Your task to perform on an android device: Clear the shopping cart on walmart. Add macbook pro 13 inch to the cart on walmart Image 0: 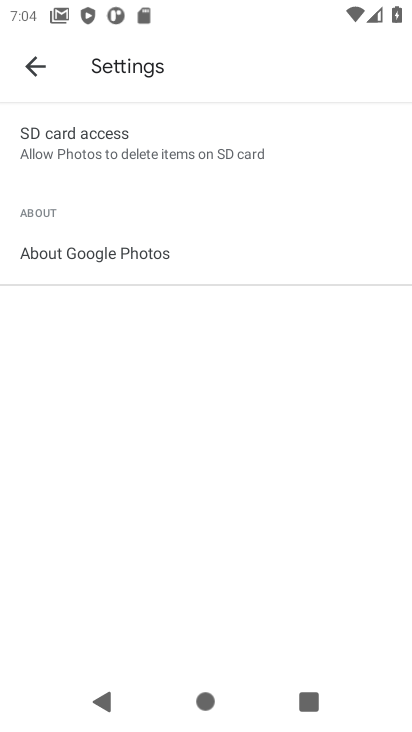
Step 0: press home button
Your task to perform on an android device: Clear the shopping cart on walmart. Add macbook pro 13 inch to the cart on walmart Image 1: 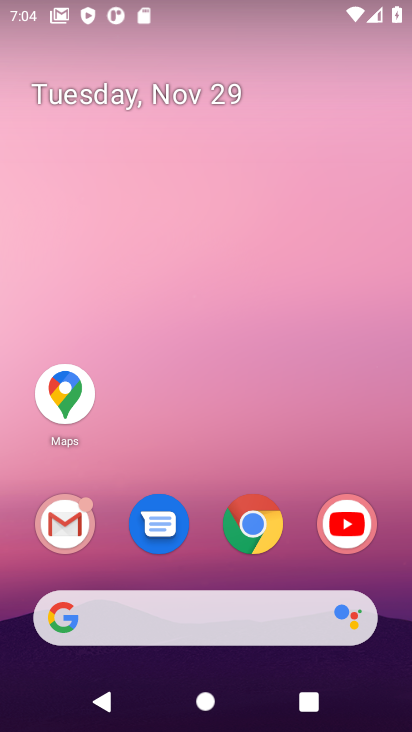
Step 1: click (258, 517)
Your task to perform on an android device: Clear the shopping cart on walmart. Add macbook pro 13 inch to the cart on walmart Image 2: 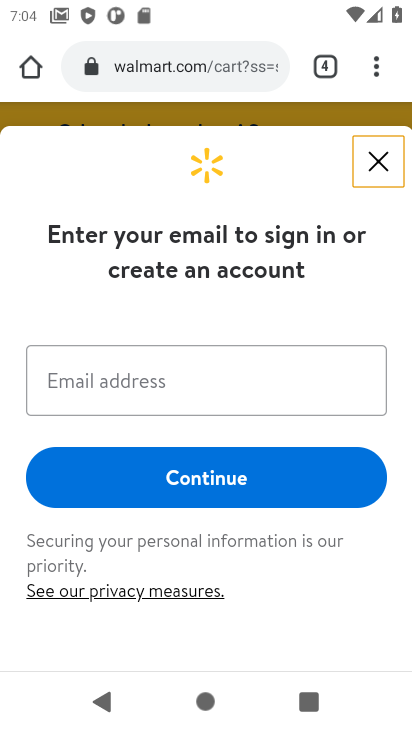
Step 2: click (392, 156)
Your task to perform on an android device: Clear the shopping cart on walmart. Add macbook pro 13 inch to the cart on walmart Image 3: 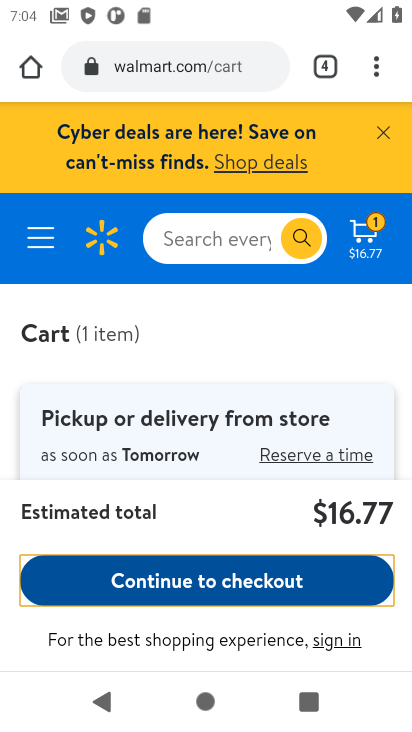
Step 3: click (344, 330)
Your task to perform on an android device: Clear the shopping cart on walmart. Add macbook pro 13 inch to the cart on walmart Image 4: 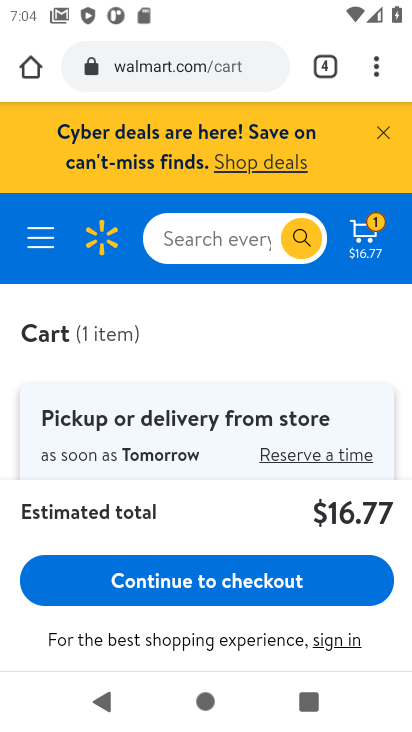
Step 4: drag from (344, 330) to (354, 154)
Your task to perform on an android device: Clear the shopping cart on walmart. Add macbook pro 13 inch to the cart on walmart Image 5: 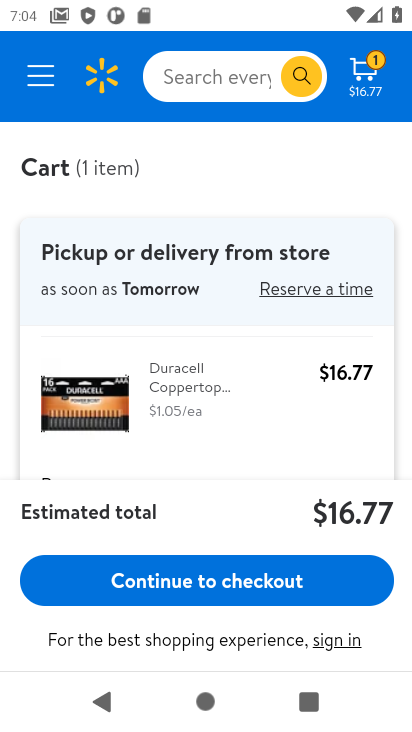
Step 5: drag from (329, 416) to (316, 227)
Your task to perform on an android device: Clear the shopping cart on walmart. Add macbook pro 13 inch to the cart on walmart Image 6: 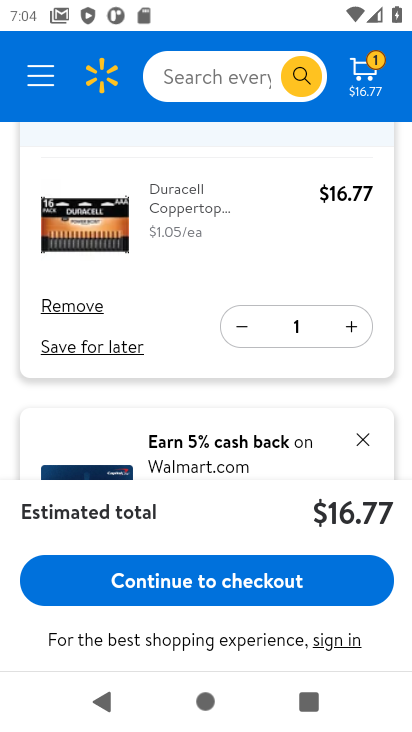
Step 6: click (47, 304)
Your task to perform on an android device: Clear the shopping cart on walmart. Add macbook pro 13 inch to the cart on walmart Image 7: 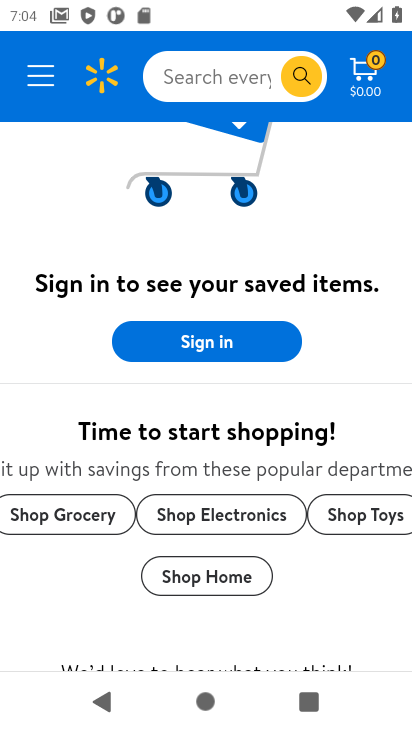
Step 7: click (188, 79)
Your task to perform on an android device: Clear the shopping cart on walmart. Add macbook pro 13 inch to the cart on walmart Image 8: 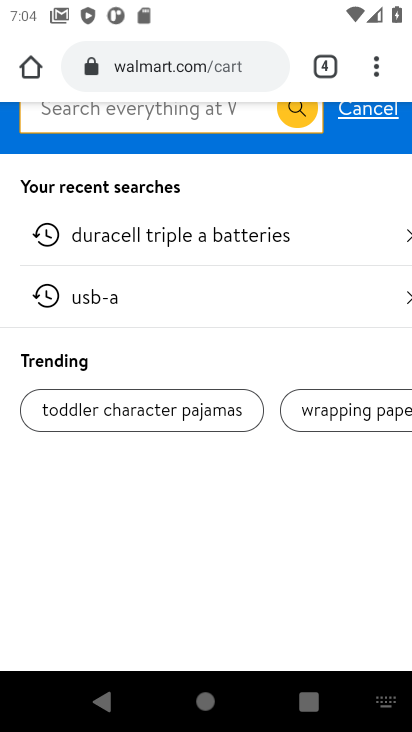
Step 8: type "macbook pro 13 inch"
Your task to perform on an android device: Clear the shopping cart on walmart. Add macbook pro 13 inch to the cart on walmart Image 9: 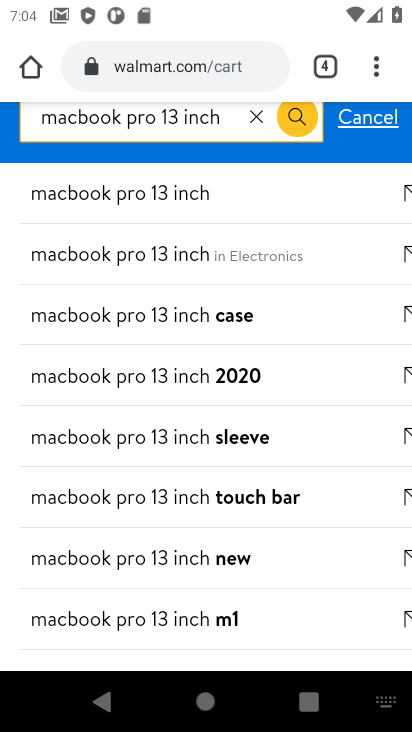
Step 9: click (104, 197)
Your task to perform on an android device: Clear the shopping cart on walmart. Add macbook pro 13 inch to the cart on walmart Image 10: 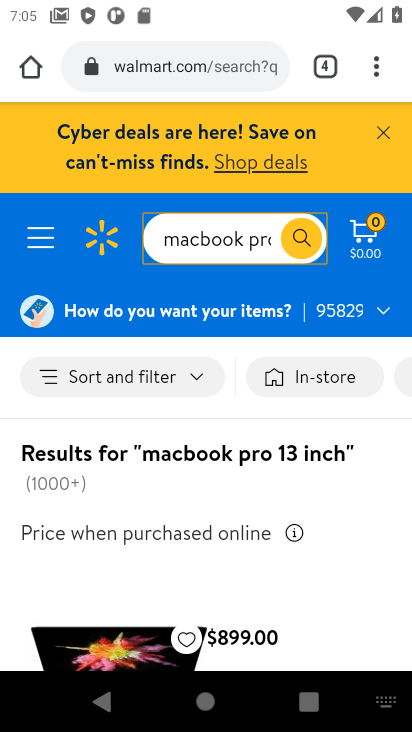
Step 10: drag from (183, 492) to (171, 259)
Your task to perform on an android device: Clear the shopping cart on walmart. Add macbook pro 13 inch to the cart on walmart Image 11: 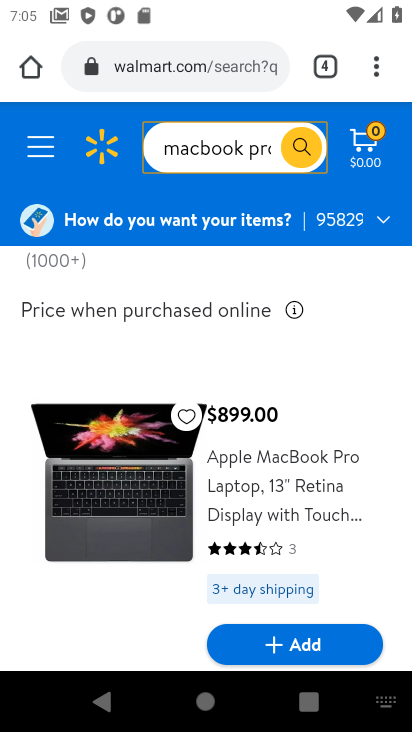
Step 11: click (291, 632)
Your task to perform on an android device: Clear the shopping cart on walmart. Add macbook pro 13 inch to the cart on walmart Image 12: 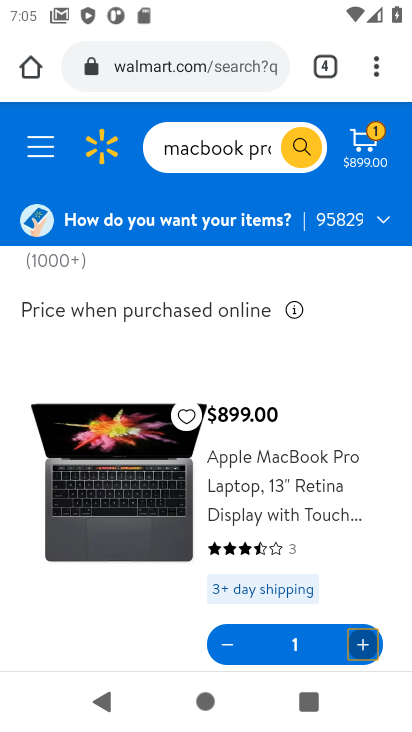
Step 12: task complete